Your task to perform on an android device: toggle pop-ups in chrome Image 0: 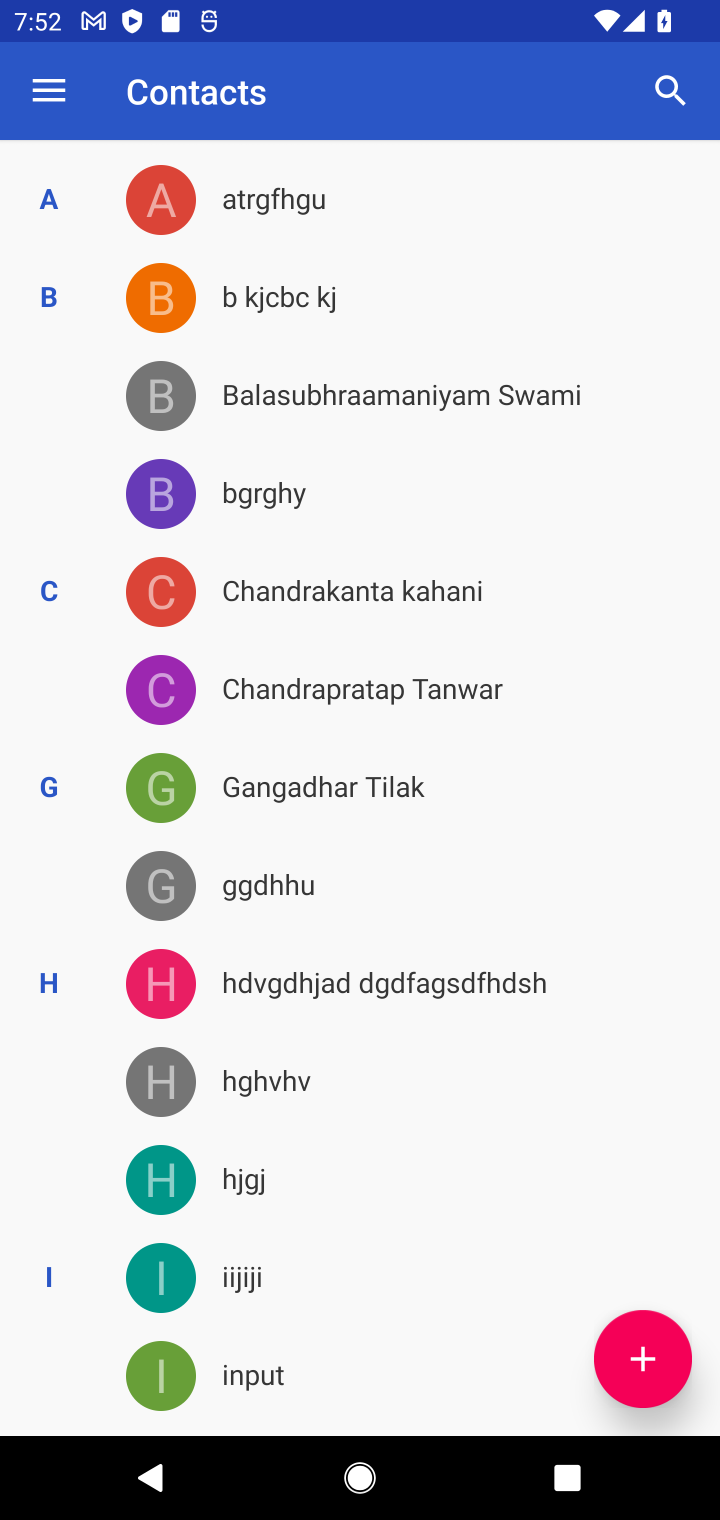
Step 0: press home button
Your task to perform on an android device: toggle pop-ups in chrome Image 1: 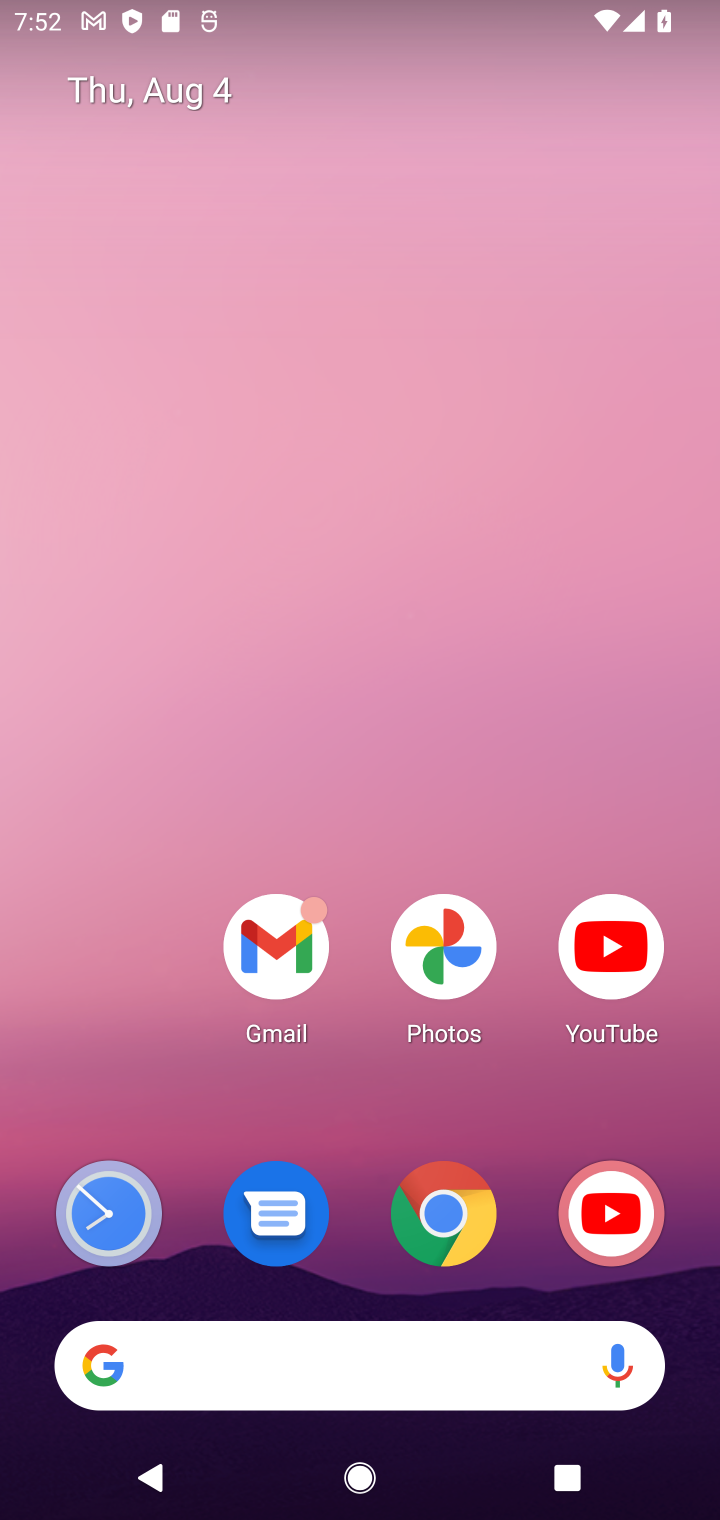
Step 1: click (471, 1217)
Your task to perform on an android device: toggle pop-ups in chrome Image 2: 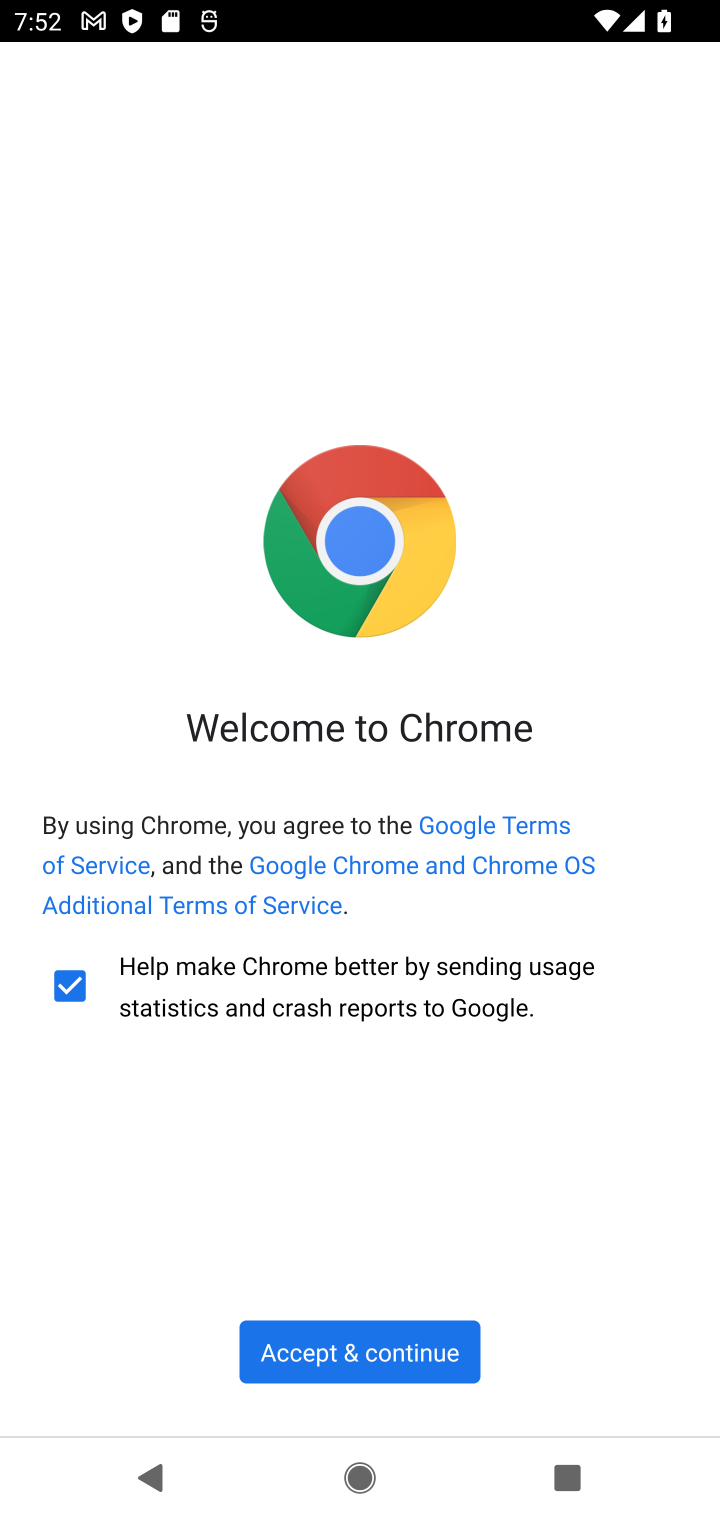
Step 2: click (372, 1348)
Your task to perform on an android device: toggle pop-ups in chrome Image 3: 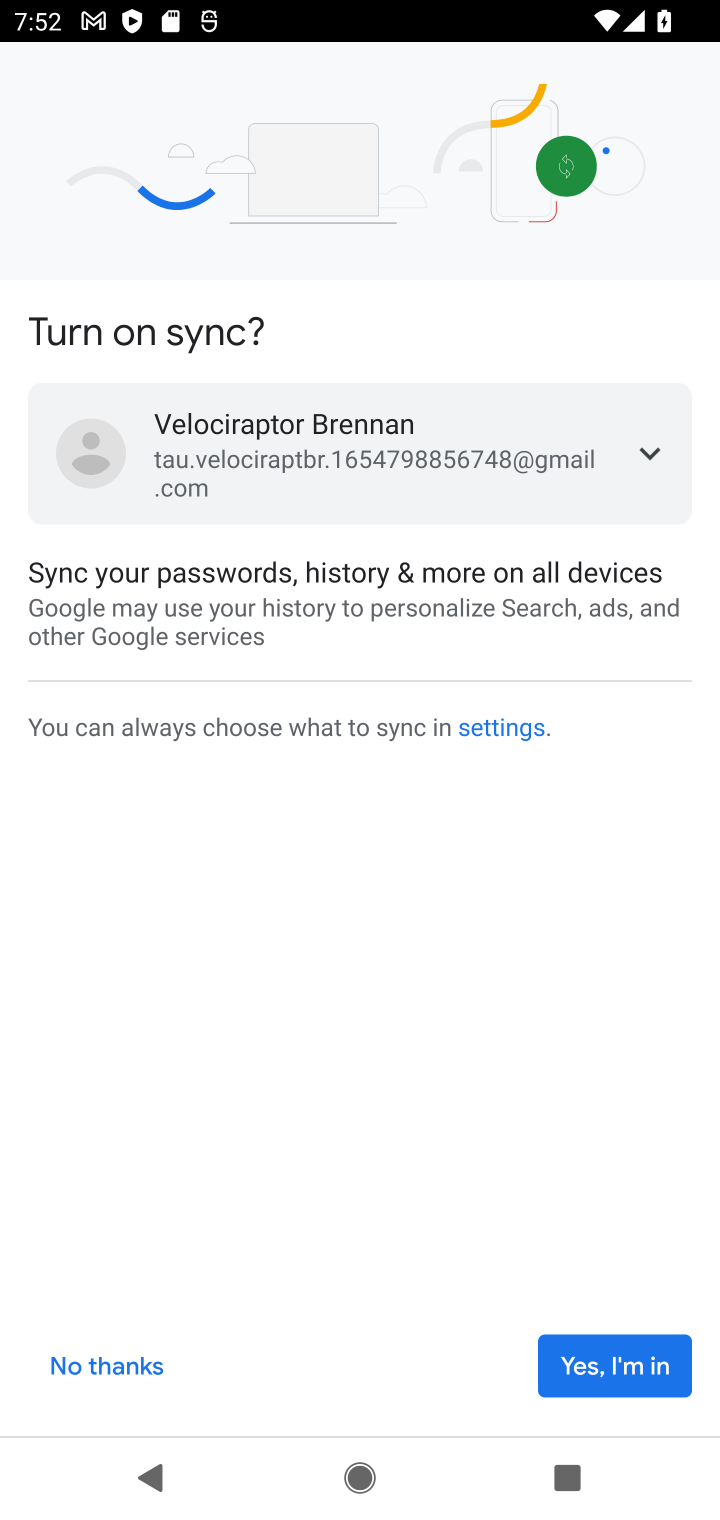
Step 3: click (662, 1360)
Your task to perform on an android device: toggle pop-ups in chrome Image 4: 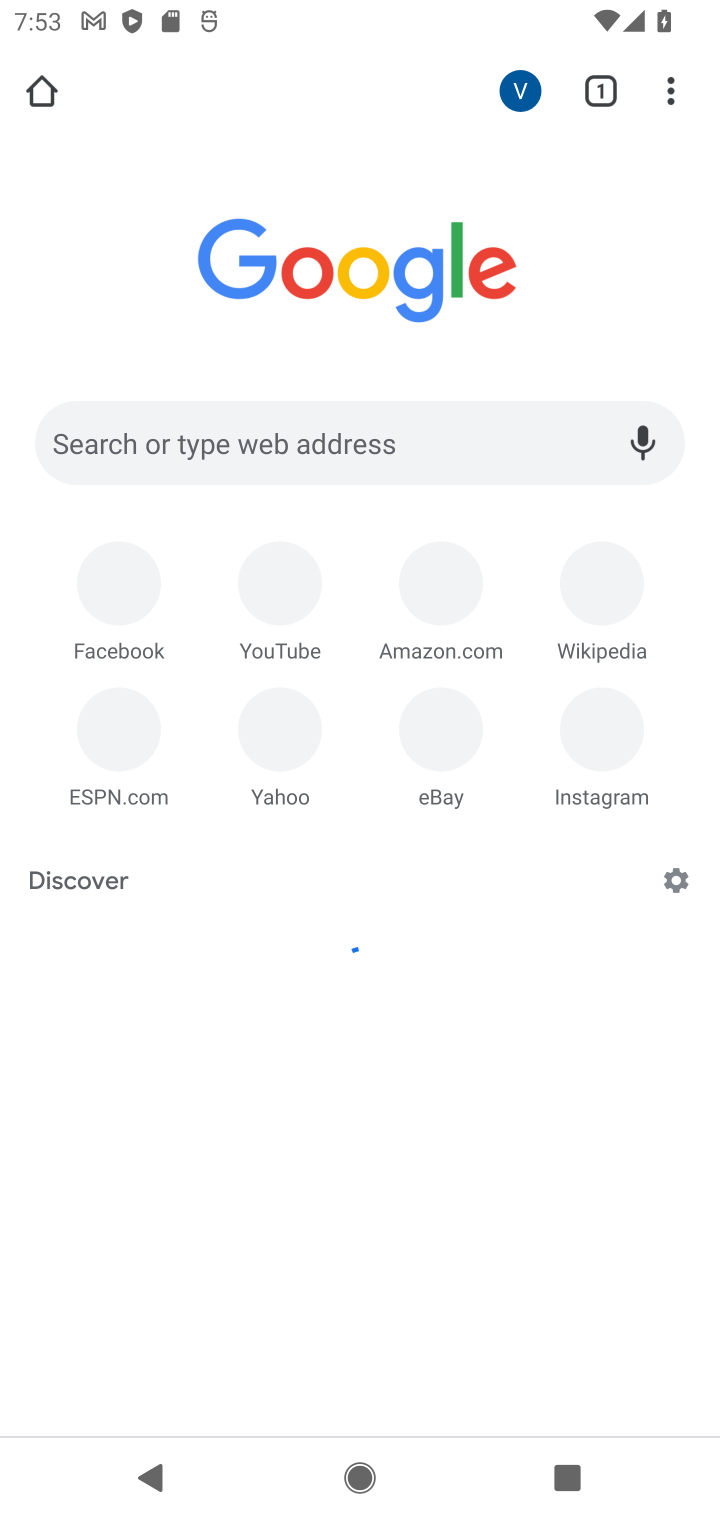
Step 4: task complete